Your task to perform on an android device: toggle notifications settings in the gmail app Image 0: 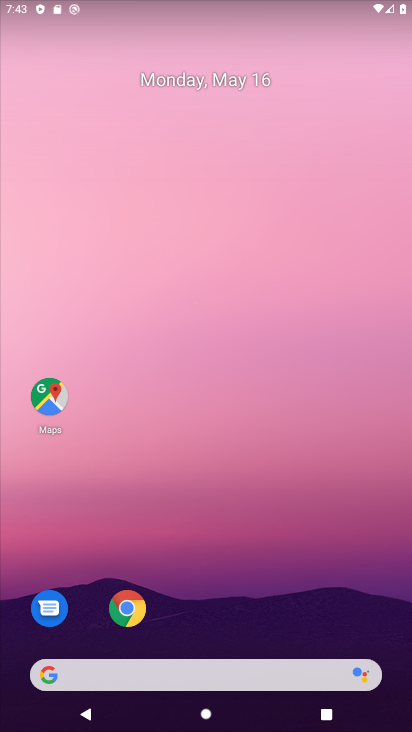
Step 0: drag from (240, 612) to (146, 137)
Your task to perform on an android device: toggle notifications settings in the gmail app Image 1: 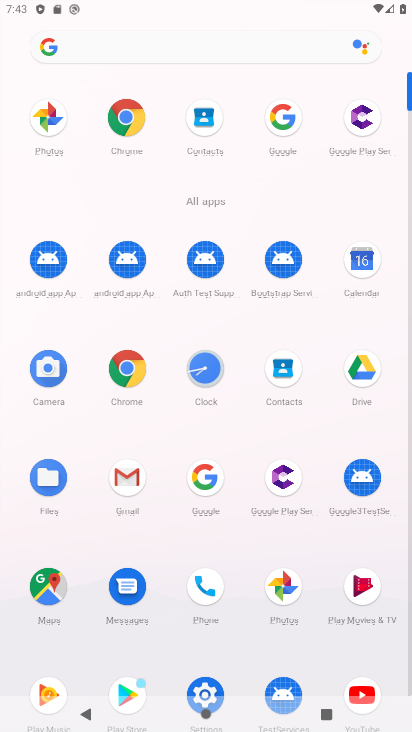
Step 1: click (124, 477)
Your task to perform on an android device: toggle notifications settings in the gmail app Image 2: 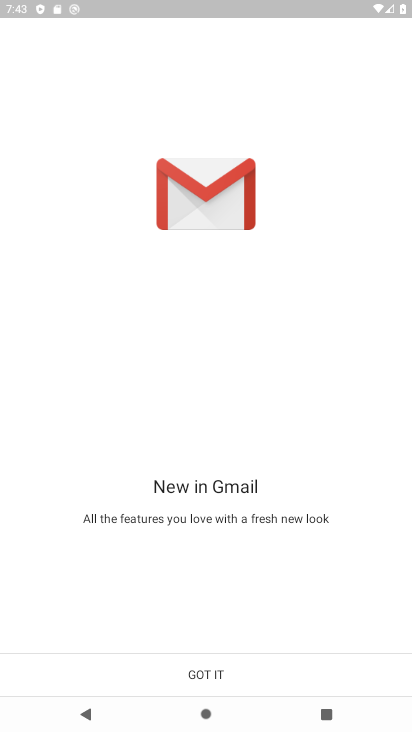
Step 2: click (201, 675)
Your task to perform on an android device: toggle notifications settings in the gmail app Image 3: 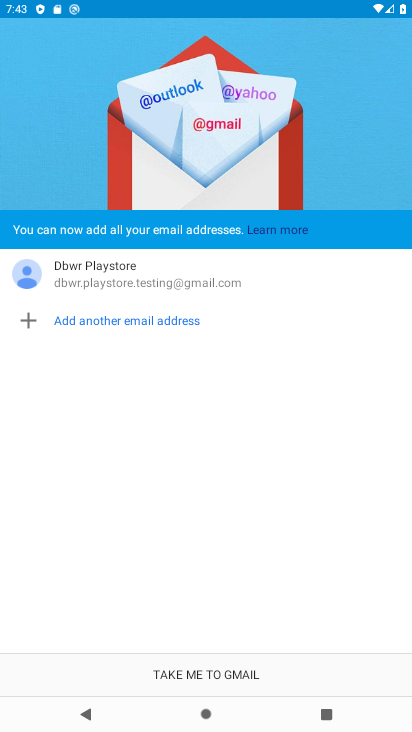
Step 3: click (201, 675)
Your task to perform on an android device: toggle notifications settings in the gmail app Image 4: 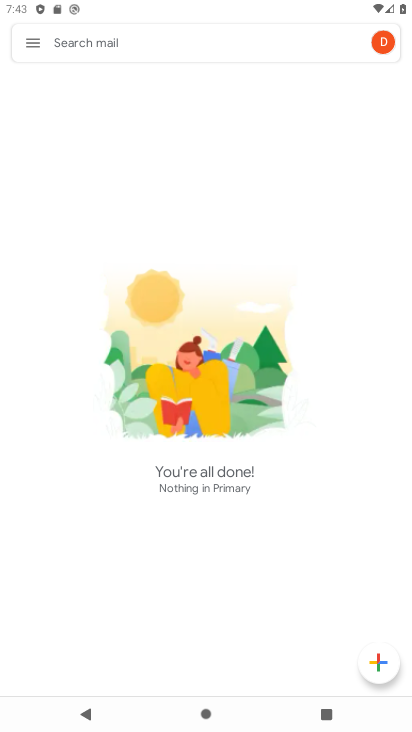
Step 4: click (29, 45)
Your task to perform on an android device: toggle notifications settings in the gmail app Image 5: 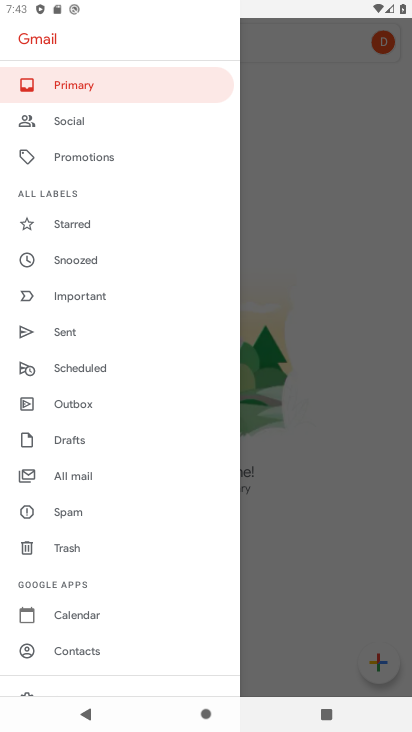
Step 5: drag from (70, 629) to (92, 553)
Your task to perform on an android device: toggle notifications settings in the gmail app Image 6: 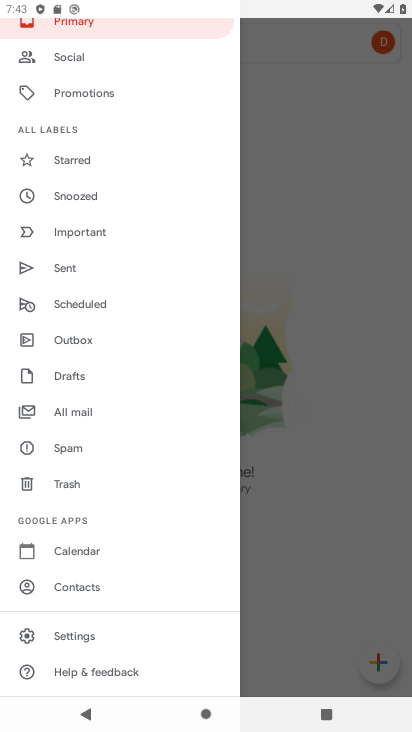
Step 6: click (82, 635)
Your task to perform on an android device: toggle notifications settings in the gmail app Image 7: 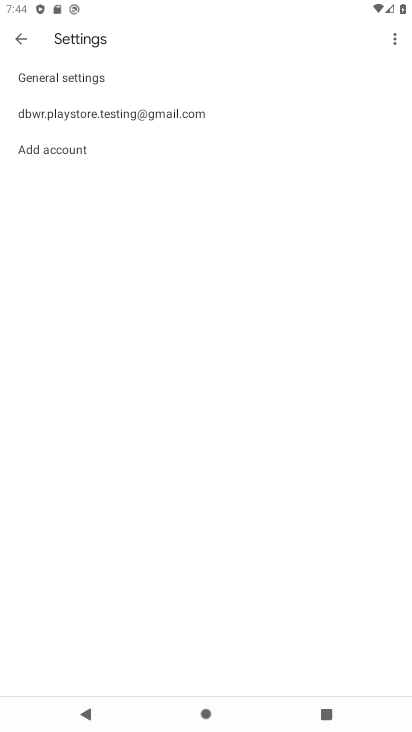
Step 7: click (113, 117)
Your task to perform on an android device: toggle notifications settings in the gmail app Image 8: 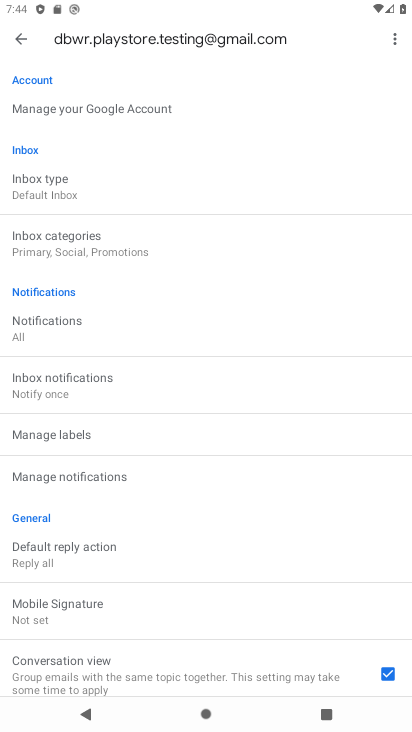
Step 8: click (85, 473)
Your task to perform on an android device: toggle notifications settings in the gmail app Image 9: 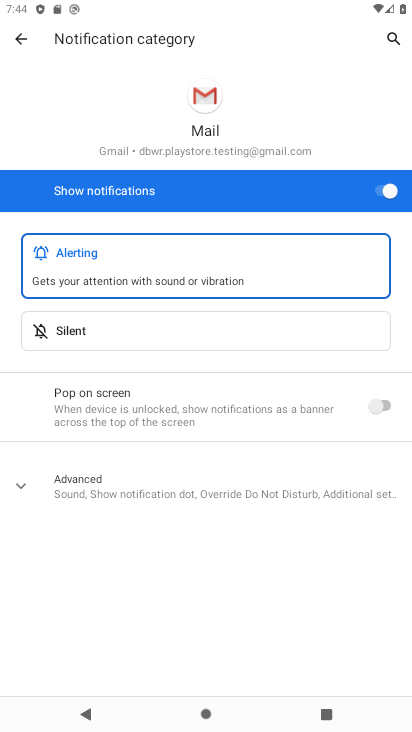
Step 9: click (389, 189)
Your task to perform on an android device: toggle notifications settings in the gmail app Image 10: 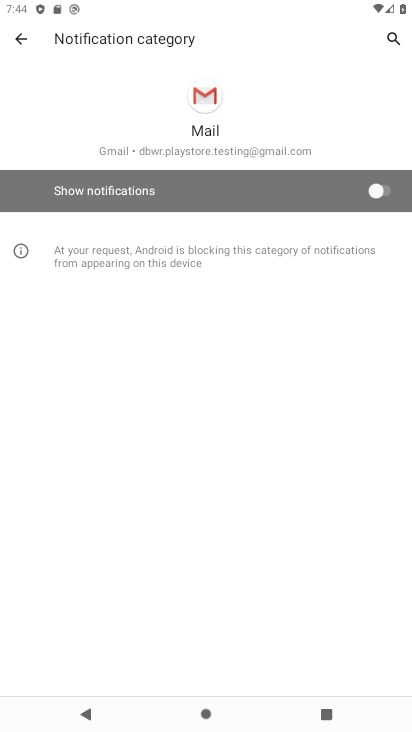
Step 10: task complete